Your task to perform on an android device: set an alarm Image 0: 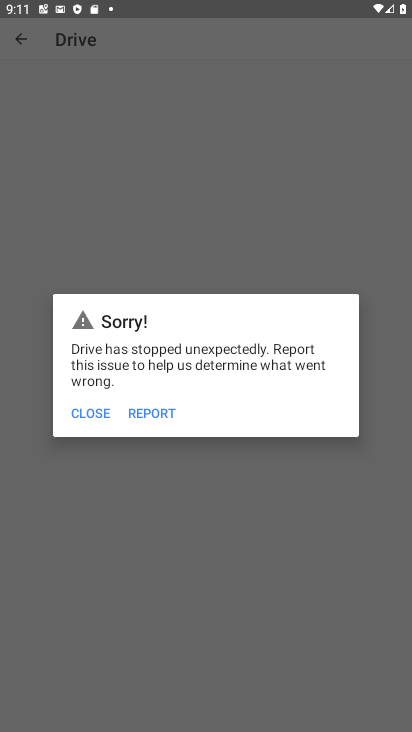
Step 0: press home button
Your task to perform on an android device: set an alarm Image 1: 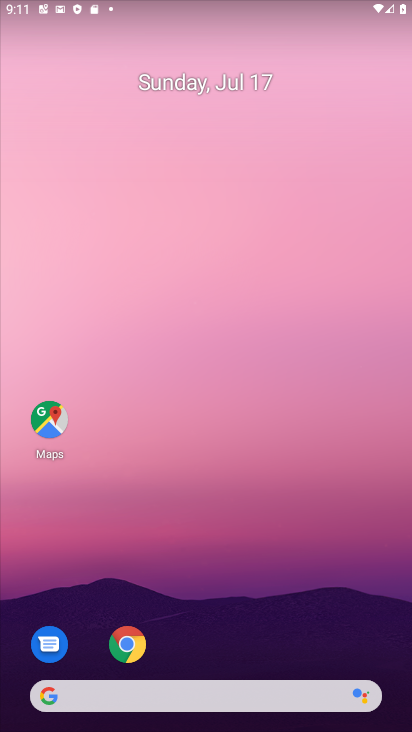
Step 1: drag from (206, 660) to (197, 66)
Your task to perform on an android device: set an alarm Image 2: 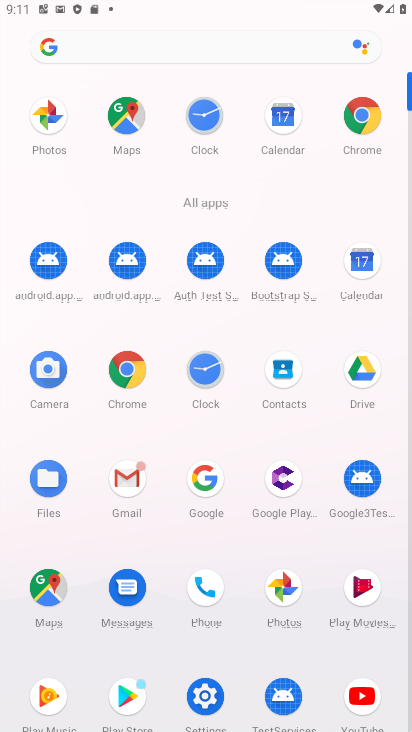
Step 2: click (199, 362)
Your task to perform on an android device: set an alarm Image 3: 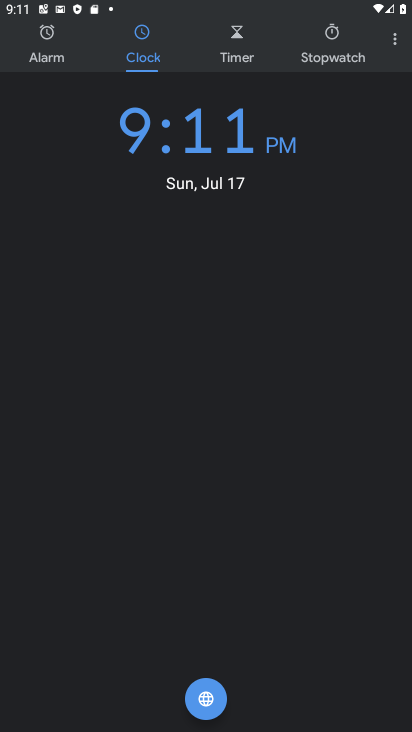
Step 3: click (40, 45)
Your task to perform on an android device: set an alarm Image 4: 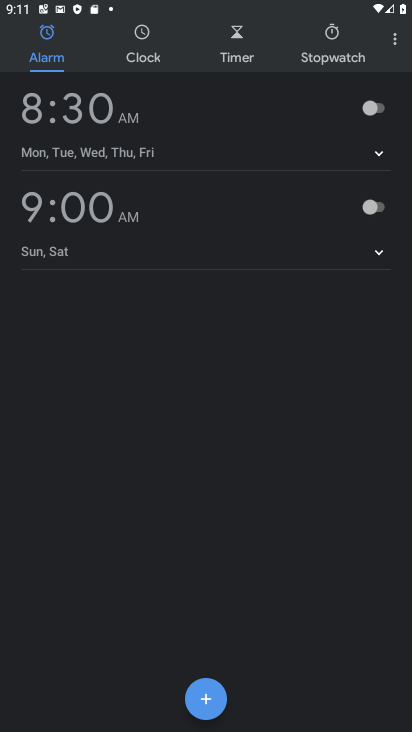
Step 4: click (194, 703)
Your task to perform on an android device: set an alarm Image 5: 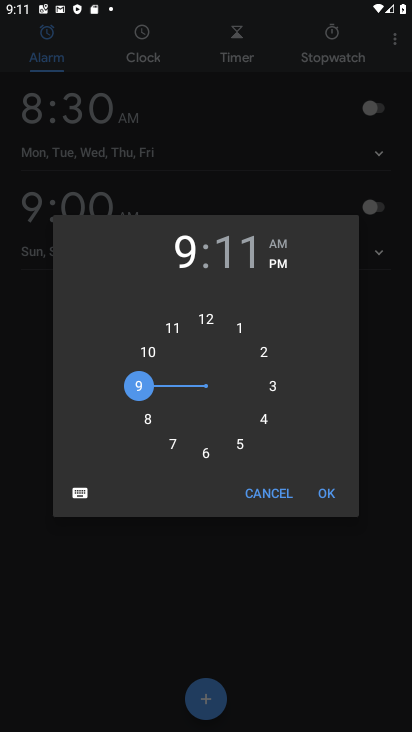
Step 5: click (324, 493)
Your task to perform on an android device: set an alarm Image 6: 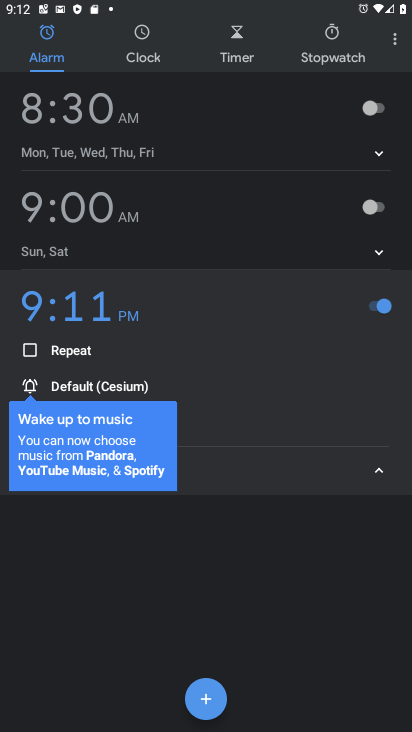
Step 6: task complete